Your task to perform on an android device: Search for "macbook pro 13 inch" on amazon.com, select the first entry, and add it to the cart. Image 0: 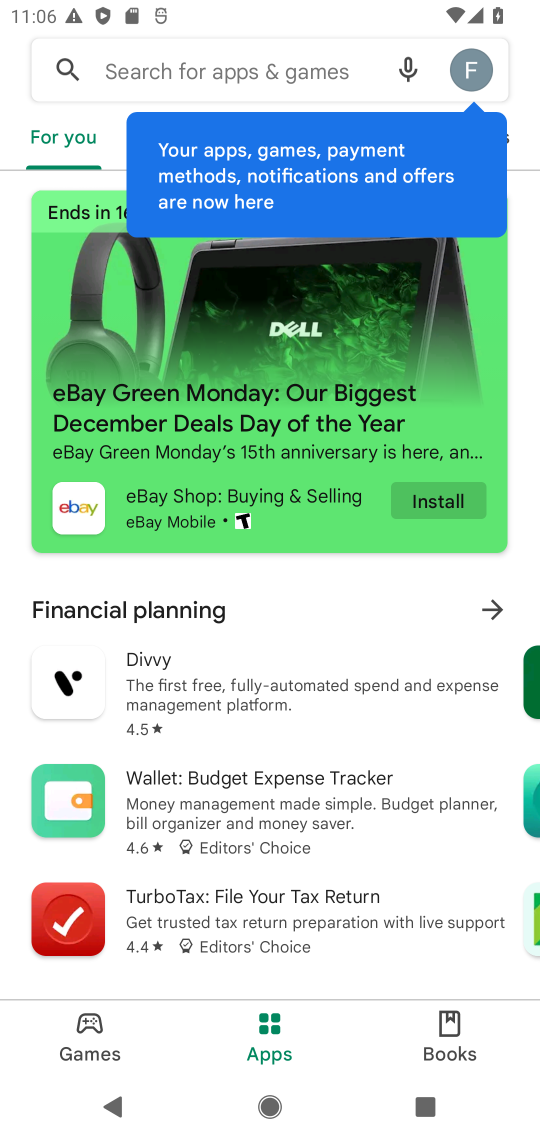
Step 0: press home button
Your task to perform on an android device: Search for "macbook pro 13 inch" on amazon.com, select the first entry, and add it to the cart. Image 1: 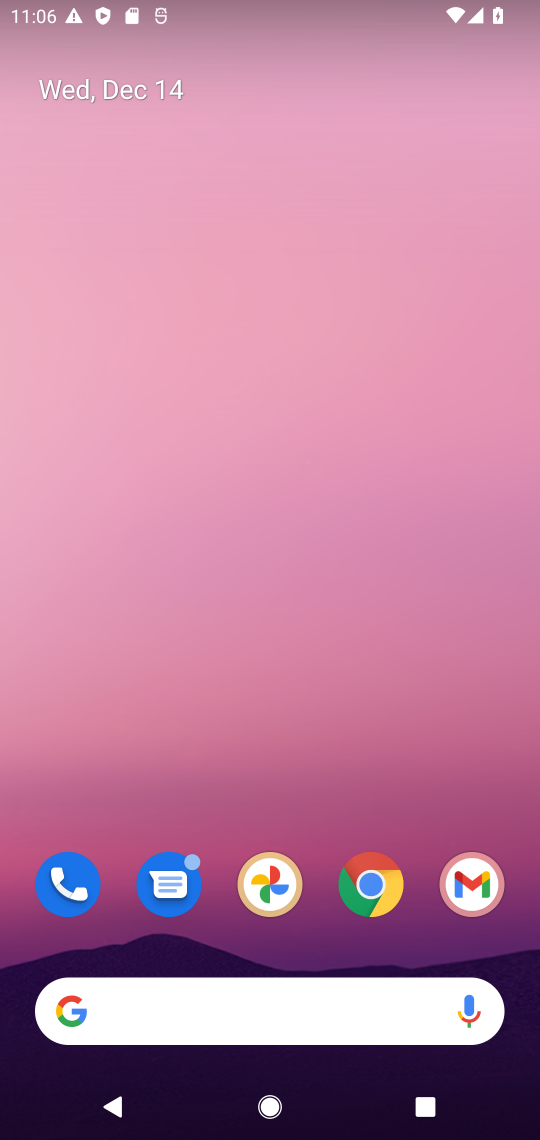
Step 1: click (377, 890)
Your task to perform on an android device: Search for "macbook pro 13 inch" on amazon.com, select the first entry, and add it to the cart. Image 2: 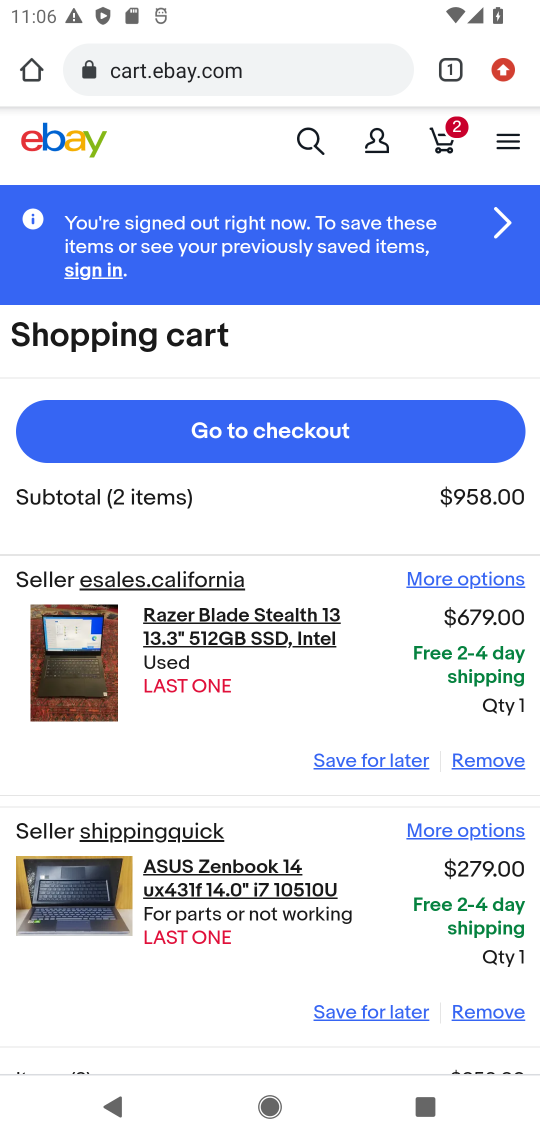
Step 2: click (213, 82)
Your task to perform on an android device: Search for "macbook pro 13 inch" on amazon.com, select the first entry, and add it to the cart. Image 3: 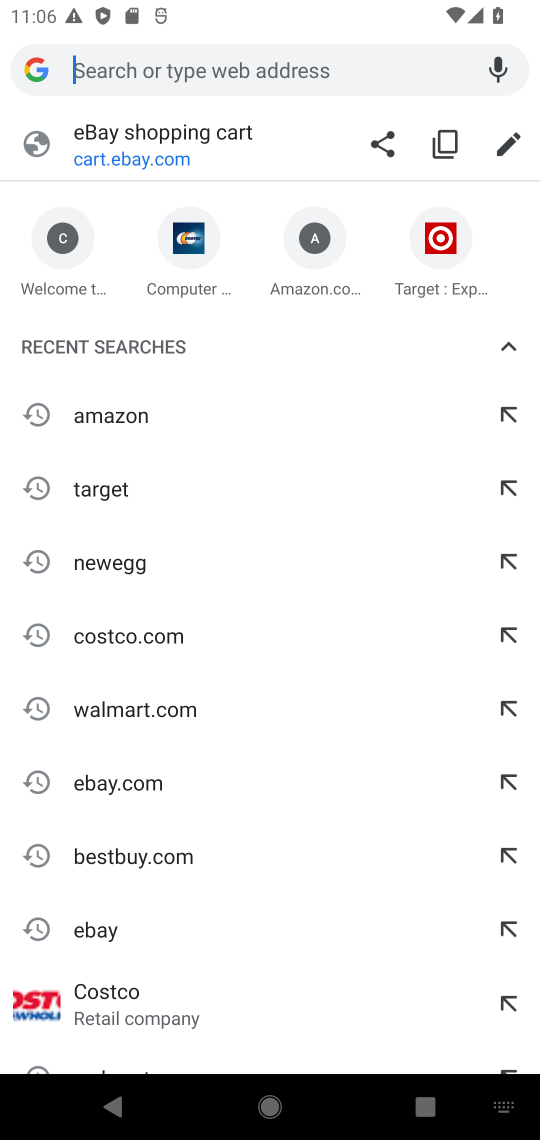
Step 3: type "amazon.com"
Your task to perform on an android device: Search for "macbook pro 13 inch" on amazon.com, select the first entry, and add it to the cart. Image 4: 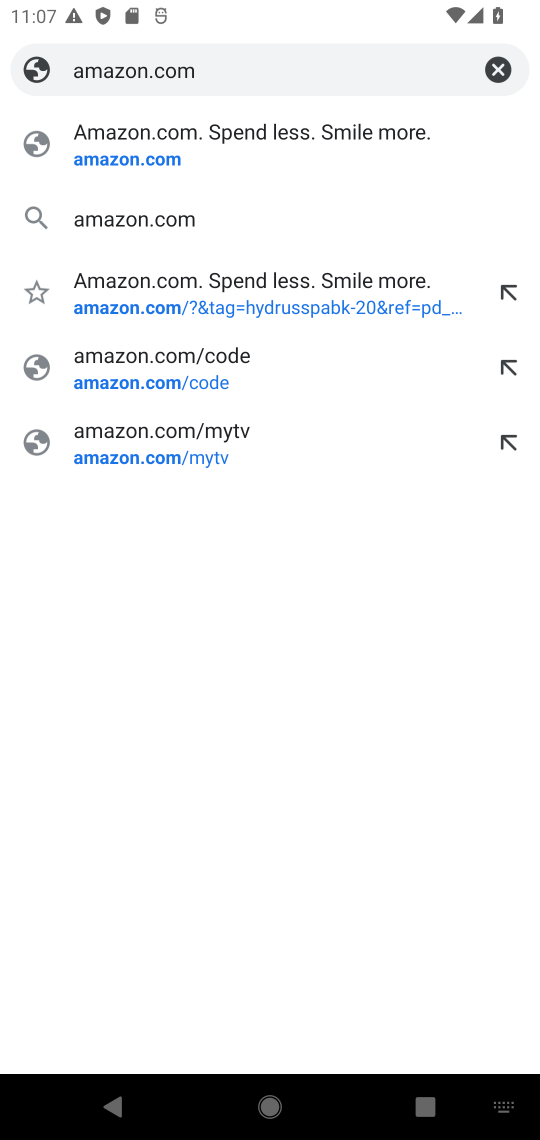
Step 4: press enter
Your task to perform on an android device: Search for "macbook pro 13 inch" on amazon.com, select the first entry, and add it to the cart. Image 5: 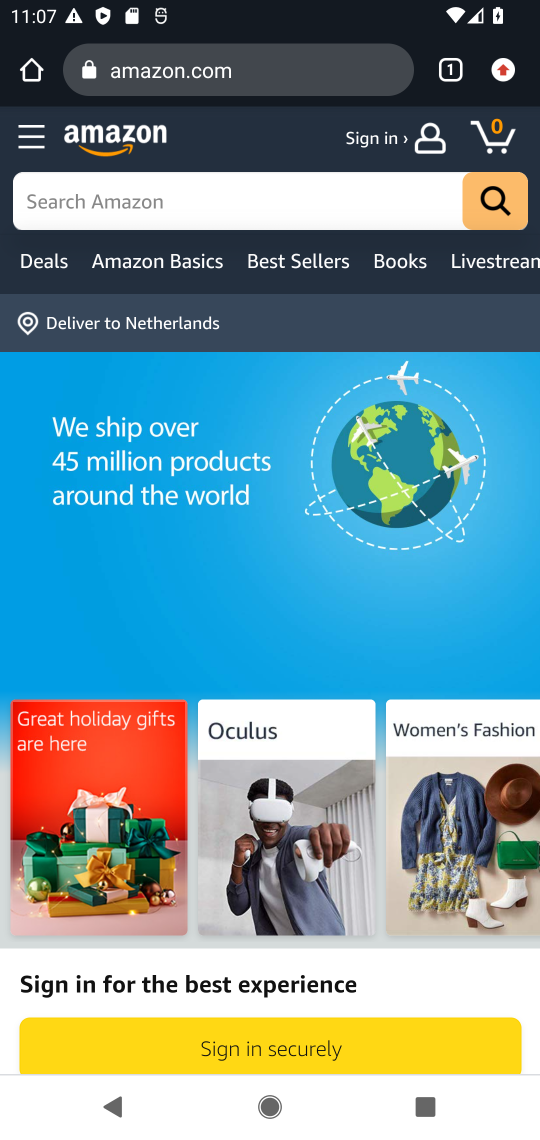
Step 5: click (270, 203)
Your task to perform on an android device: Search for "macbook pro 13 inch" on amazon.com, select the first entry, and add it to the cart. Image 6: 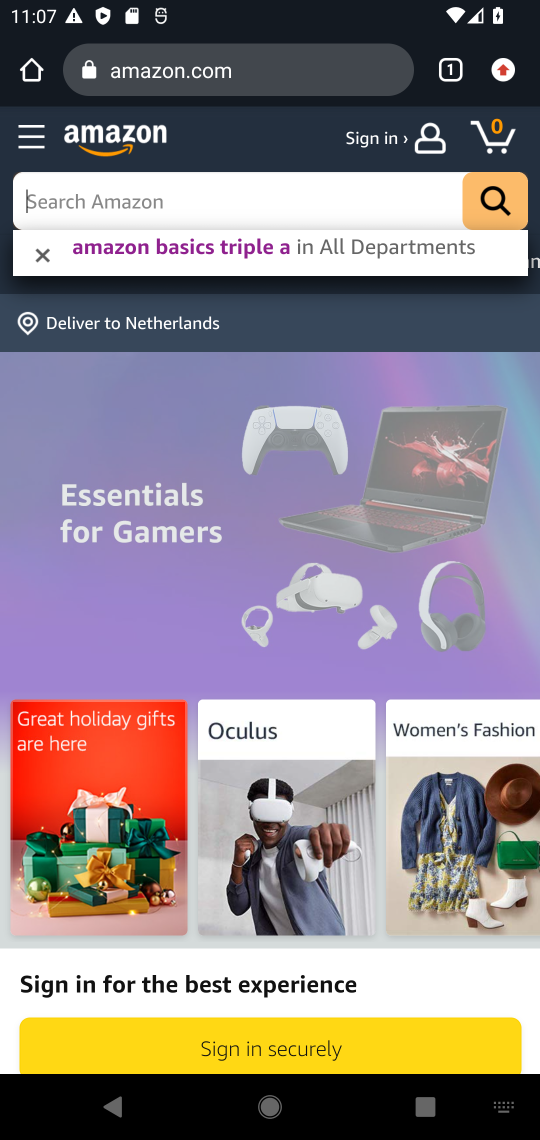
Step 6: type "macbook pro 13 inch"
Your task to perform on an android device: Search for "macbook pro 13 inch" on amazon.com, select the first entry, and add it to the cart. Image 7: 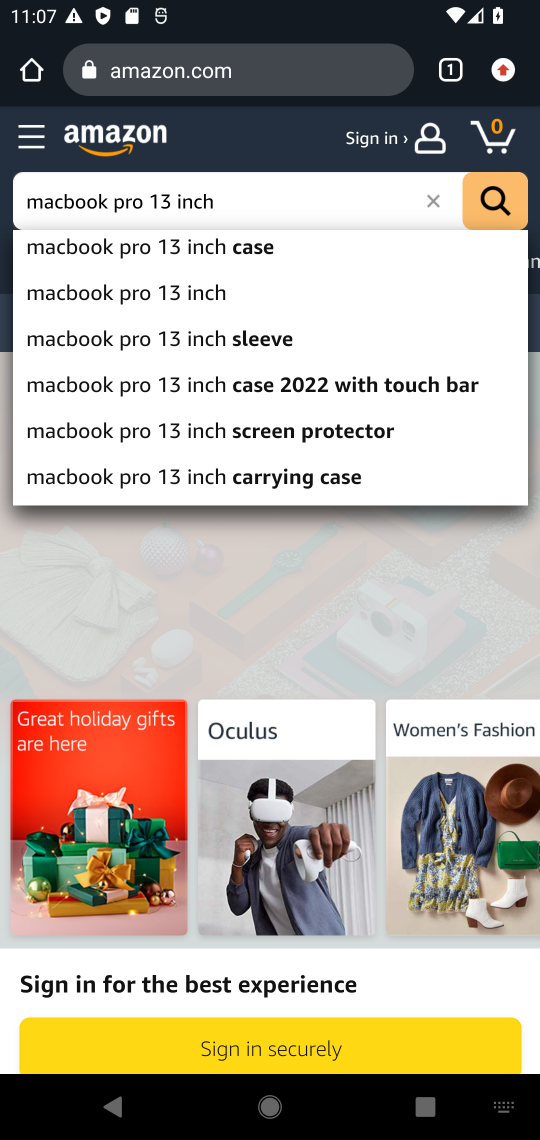
Step 7: press enter
Your task to perform on an android device: Search for "macbook pro 13 inch" on amazon.com, select the first entry, and add it to the cart. Image 8: 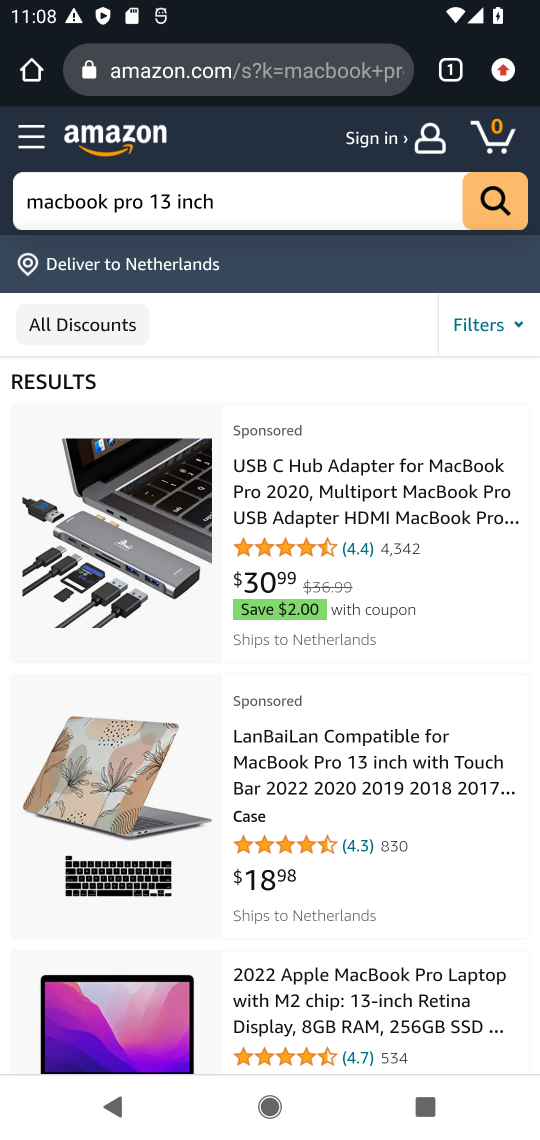
Step 8: click (303, 1012)
Your task to perform on an android device: Search for "macbook pro 13 inch" on amazon.com, select the first entry, and add it to the cart. Image 9: 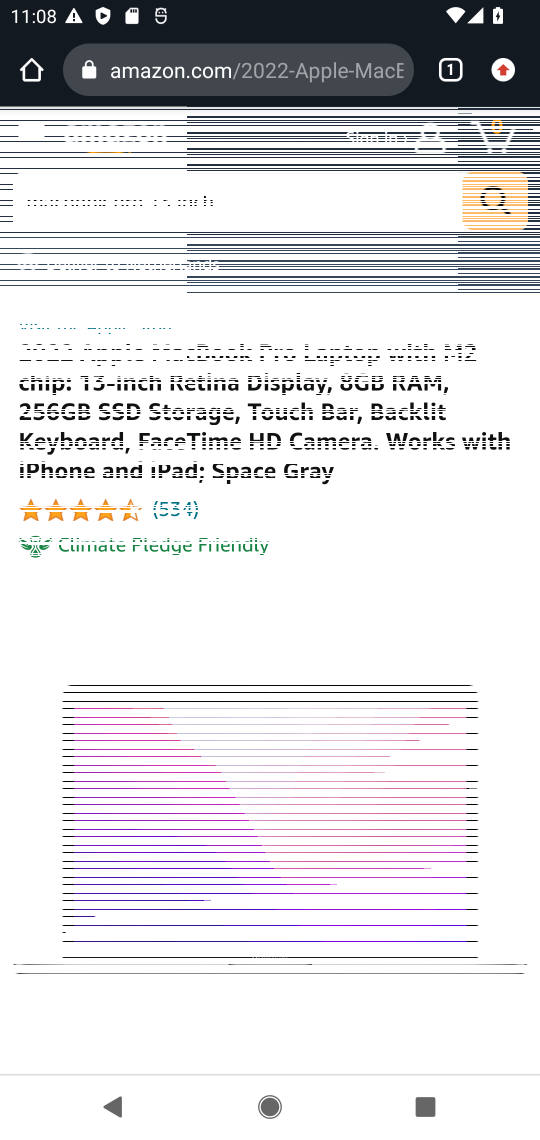
Step 9: task complete